Your task to perform on an android device: Go to settings Image 0: 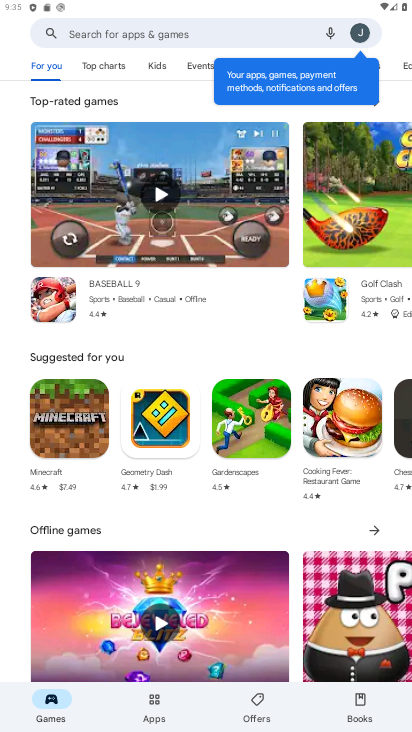
Step 0: press home button
Your task to perform on an android device: Go to settings Image 1: 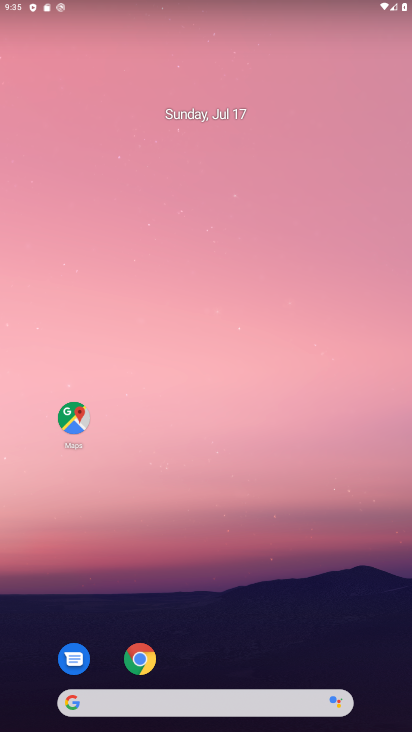
Step 1: click (258, 84)
Your task to perform on an android device: Go to settings Image 2: 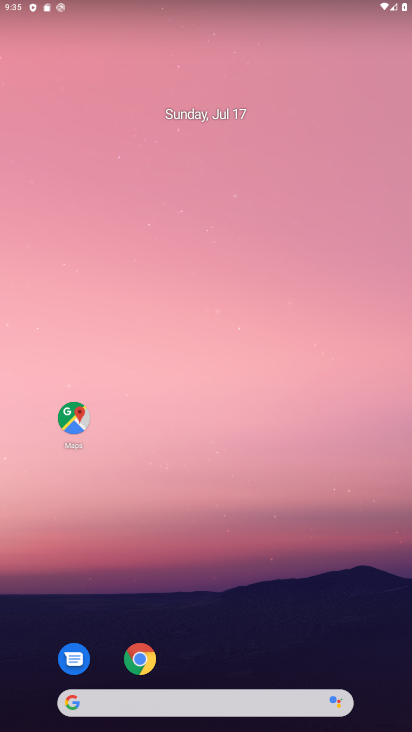
Step 2: drag from (239, 580) to (210, 166)
Your task to perform on an android device: Go to settings Image 3: 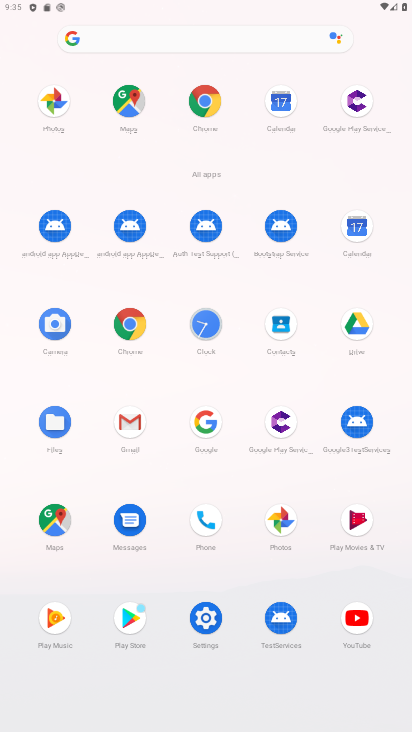
Step 3: click (199, 614)
Your task to perform on an android device: Go to settings Image 4: 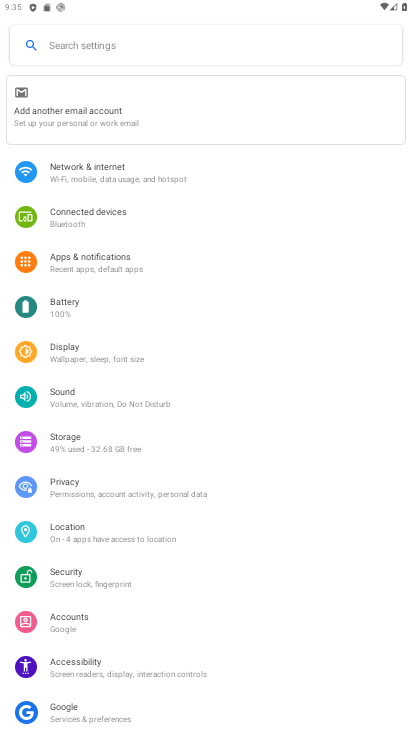
Step 4: task complete